Your task to perform on an android device: Open display settings Image 0: 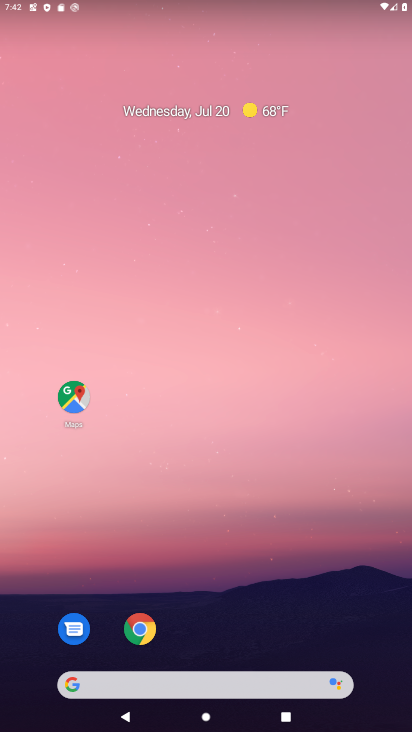
Step 0: drag from (372, 615) to (383, 96)
Your task to perform on an android device: Open display settings Image 1: 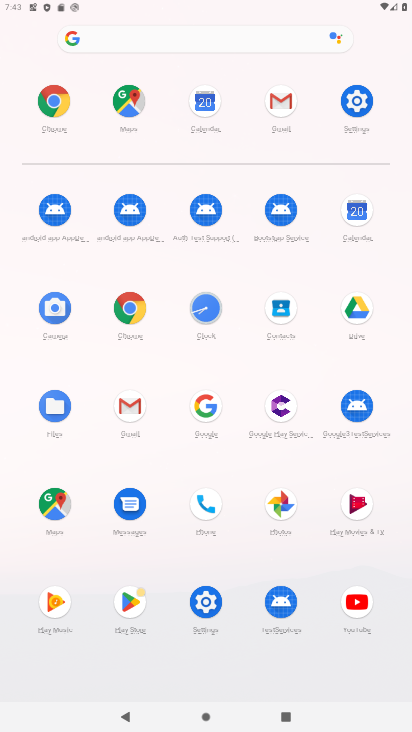
Step 1: click (362, 116)
Your task to perform on an android device: Open display settings Image 2: 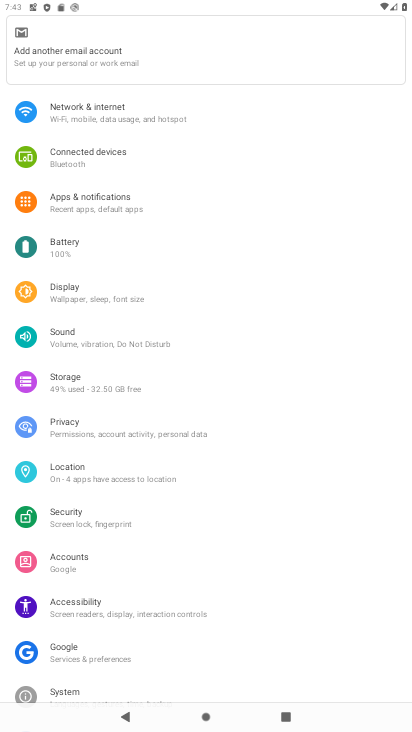
Step 2: drag from (350, 335) to (339, 259)
Your task to perform on an android device: Open display settings Image 3: 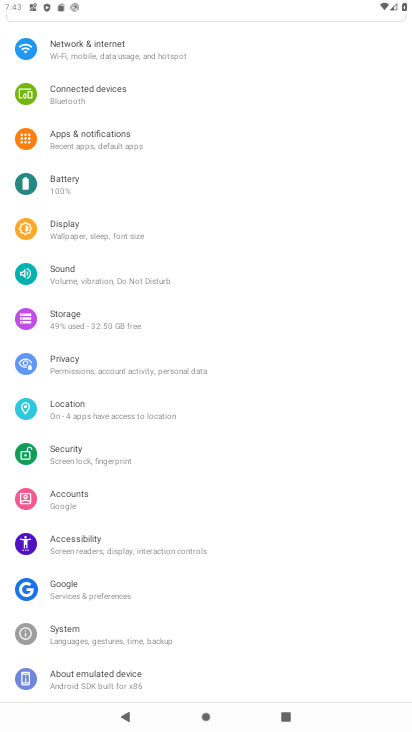
Step 3: drag from (317, 393) to (331, 250)
Your task to perform on an android device: Open display settings Image 4: 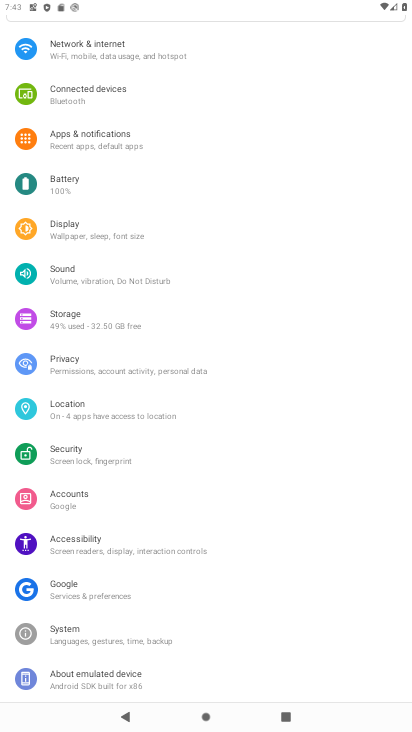
Step 4: click (141, 231)
Your task to perform on an android device: Open display settings Image 5: 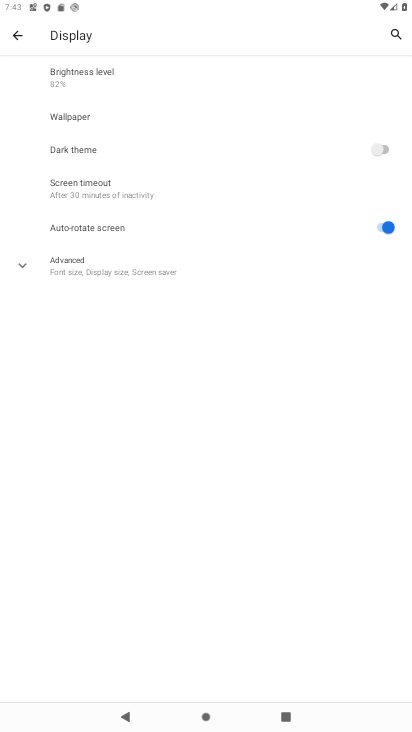
Step 5: click (133, 275)
Your task to perform on an android device: Open display settings Image 6: 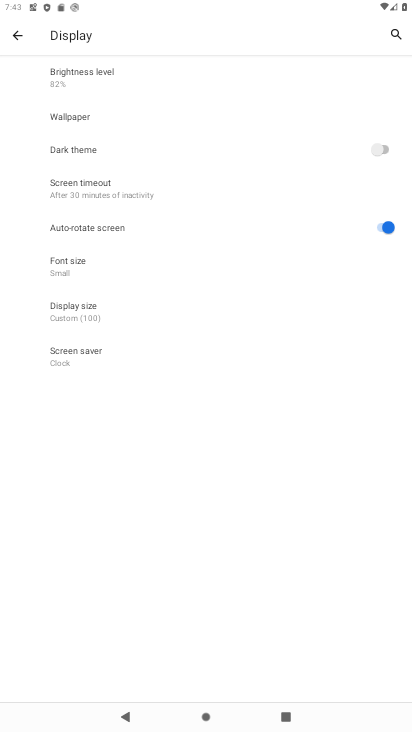
Step 6: task complete